Your task to perform on an android device: turn off wifi Image 0: 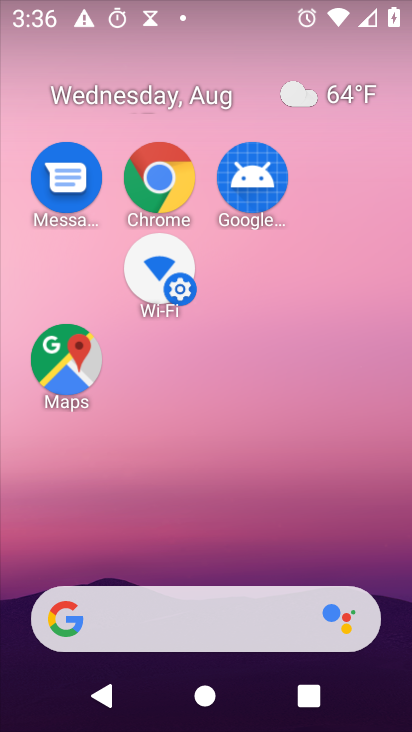
Step 0: drag from (221, 4) to (242, 532)
Your task to perform on an android device: turn off wifi Image 1: 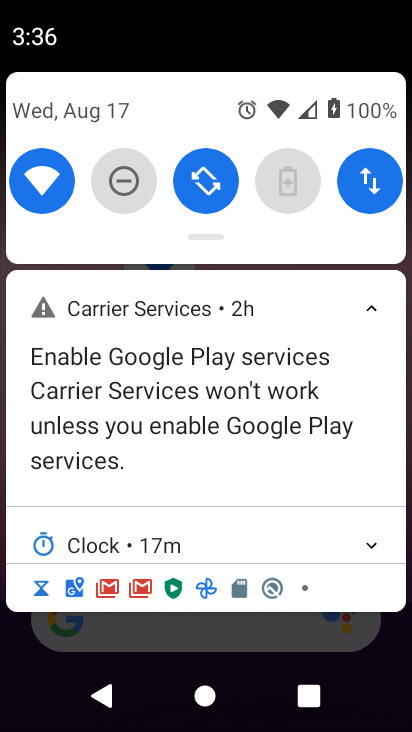
Step 1: click (46, 186)
Your task to perform on an android device: turn off wifi Image 2: 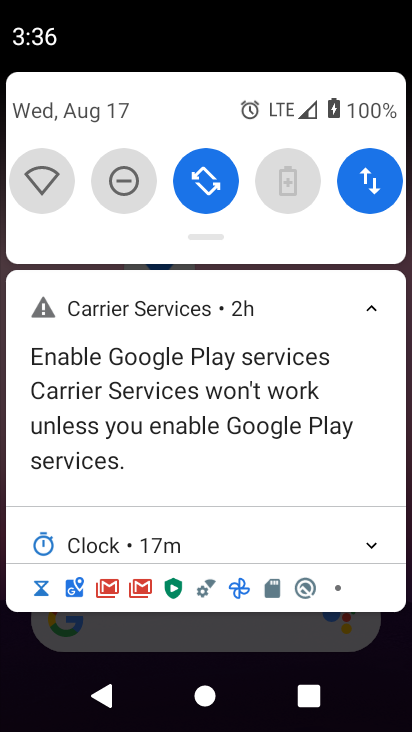
Step 2: task complete